Your task to perform on an android device: turn on wifi Image 0: 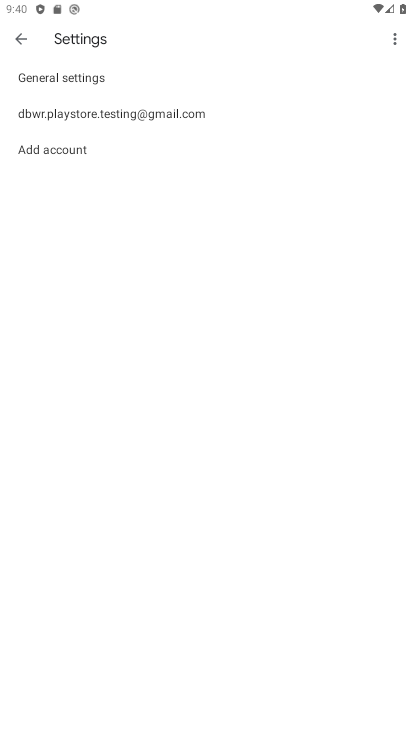
Step 0: press home button
Your task to perform on an android device: turn on wifi Image 1: 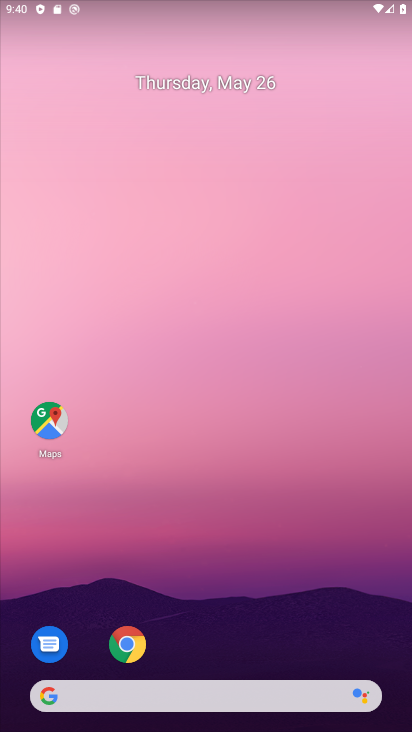
Step 1: drag from (188, 655) to (212, 221)
Your task to perform on an android device: turn on wifi Image 2: 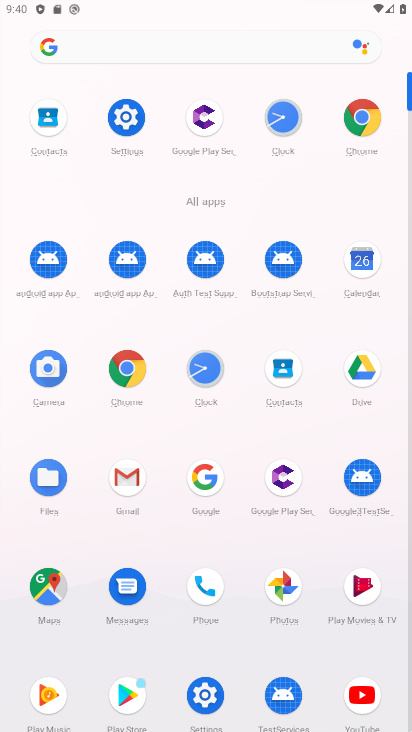
Step 2: click (117, 122)
Your task to perform on an android device: turn on wifi Image 3: 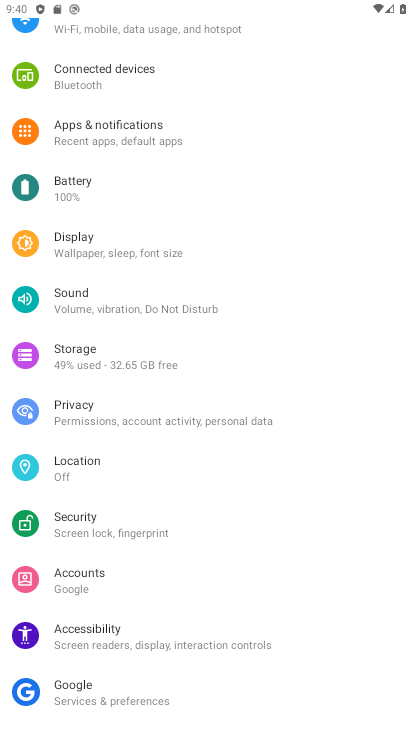
Step 3: drag from (145, 146) to (184, 560)
Your task to perform on an android device: turn on wifi Image 4: 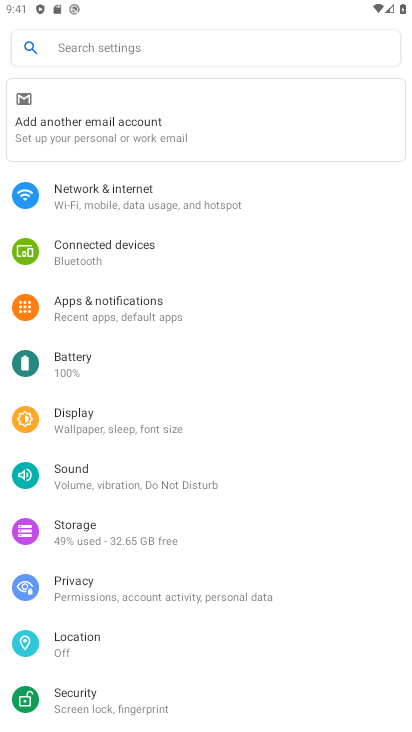
Step 4: click (163, 179)
Your task to perform on an android device: turn on wifi Image 5: 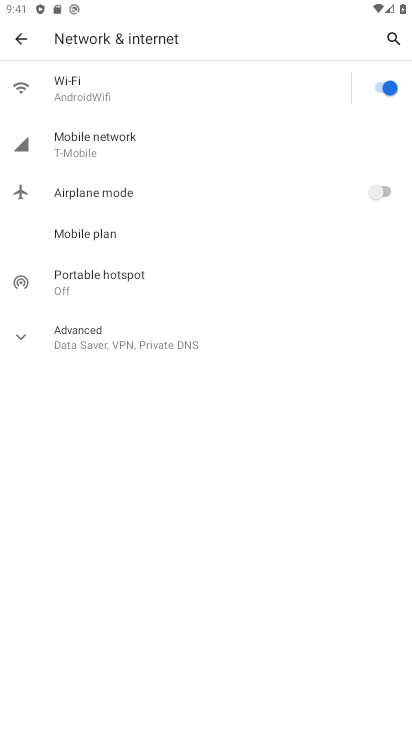
Step 5: task complete